Your task to perform on an android device: toggle sleep mode Image 0: 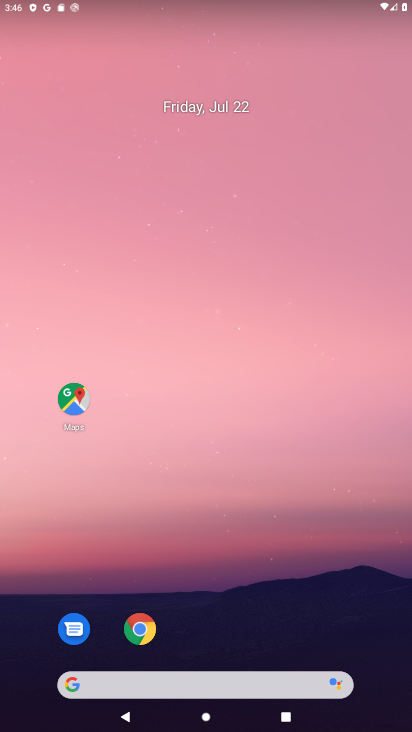
Step 0: drag from (212, 682) to (298, 142)
Your task to perform on an android device: toggle sleep mode Image 1: 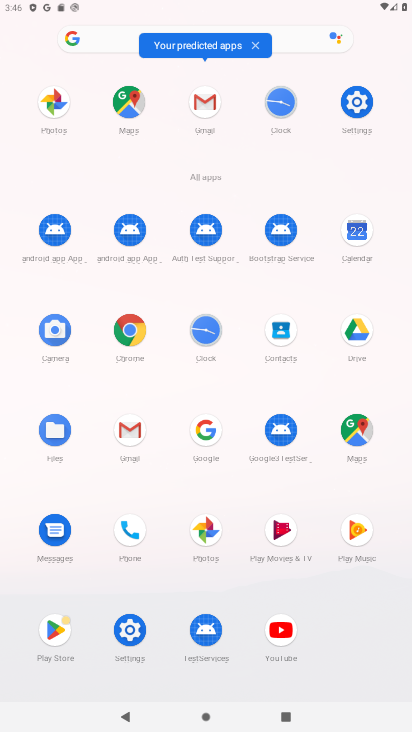
Step 1: click (365, 116)
Your task to perform on an android device: toggle sleep mode Image 2: 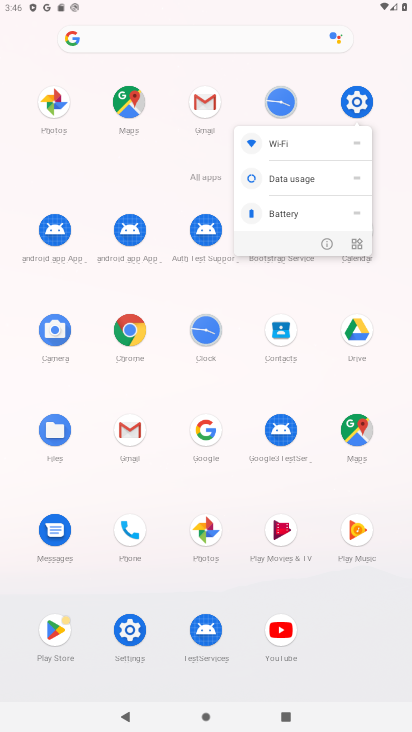
Step 2: click (356, 114)
Your task to perform on an android device: toggle sleep mode Image 3: 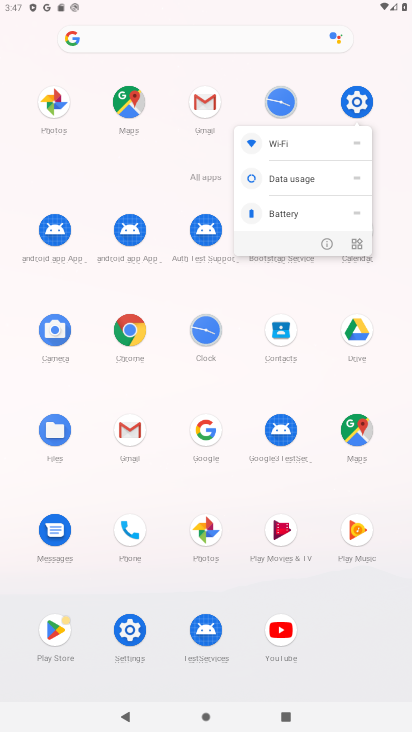
Step 3: click (116, 176)
Your task to perform on an android device: toggle sleep mode Image 4: 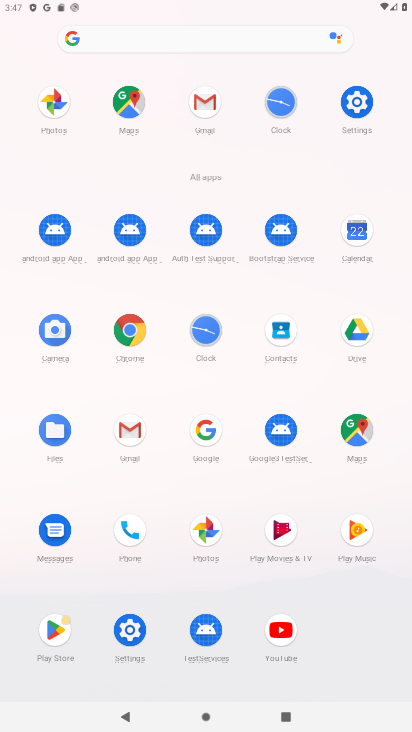
Step 4: click (355, 115)
Your task to perform on an android device: toggle sleep mode Image 5: 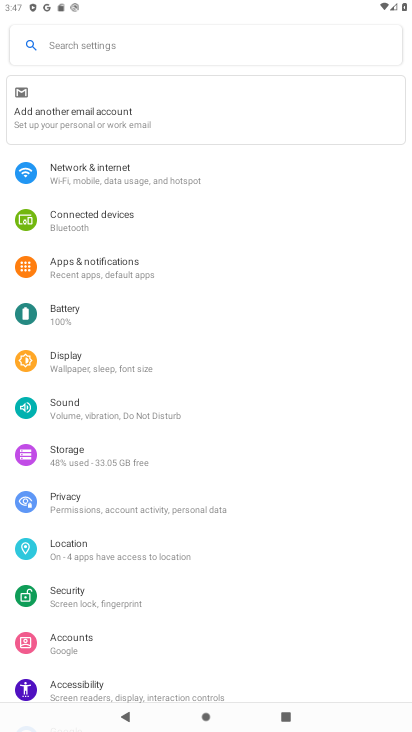
Step 5: click (100, 356)
Your task to perform on an android device: toggle sleep mode Image 6: 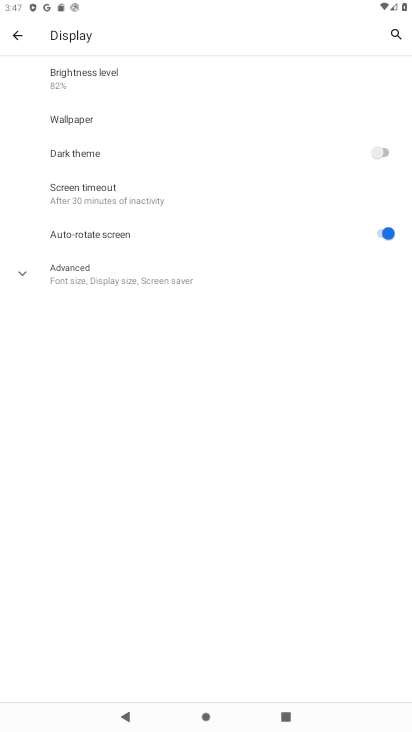
Step 6: click (149, 283)
Your task to perform on an android device: toggle sleep mode Image 7: 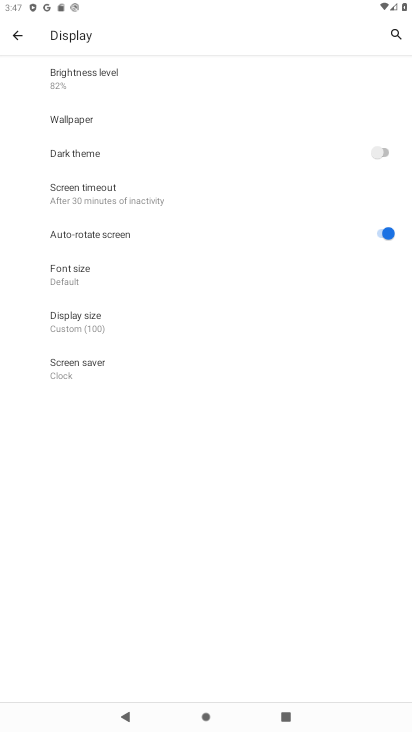
Step 7: task complete